Your task to perform on an android device: Open the map Image 0: 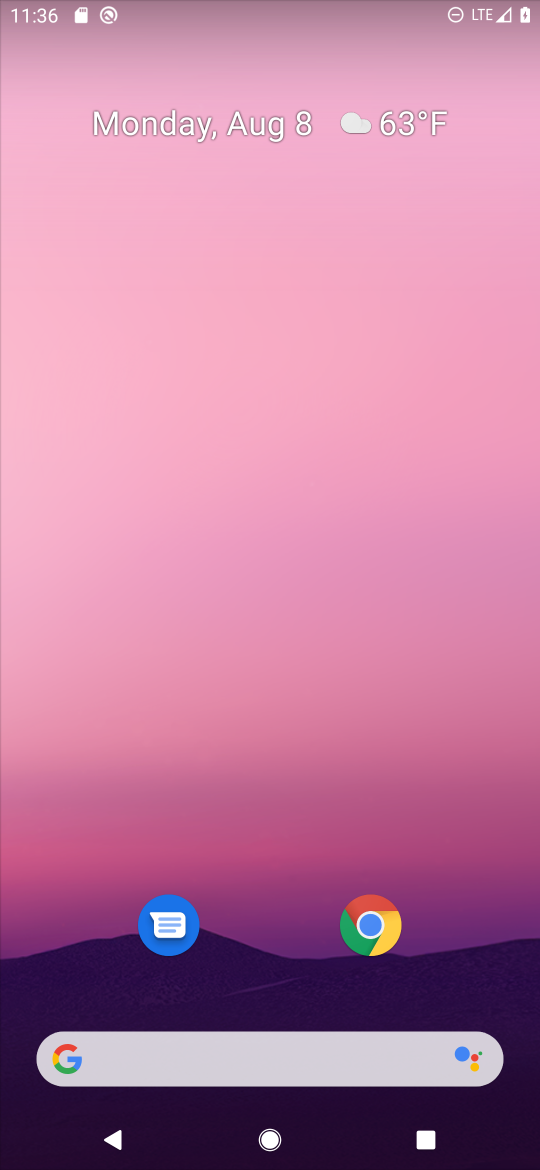
Step 0: drag from (267, 676) to (291, 113)
Your task to perform on an android device: Open the map Image 1: 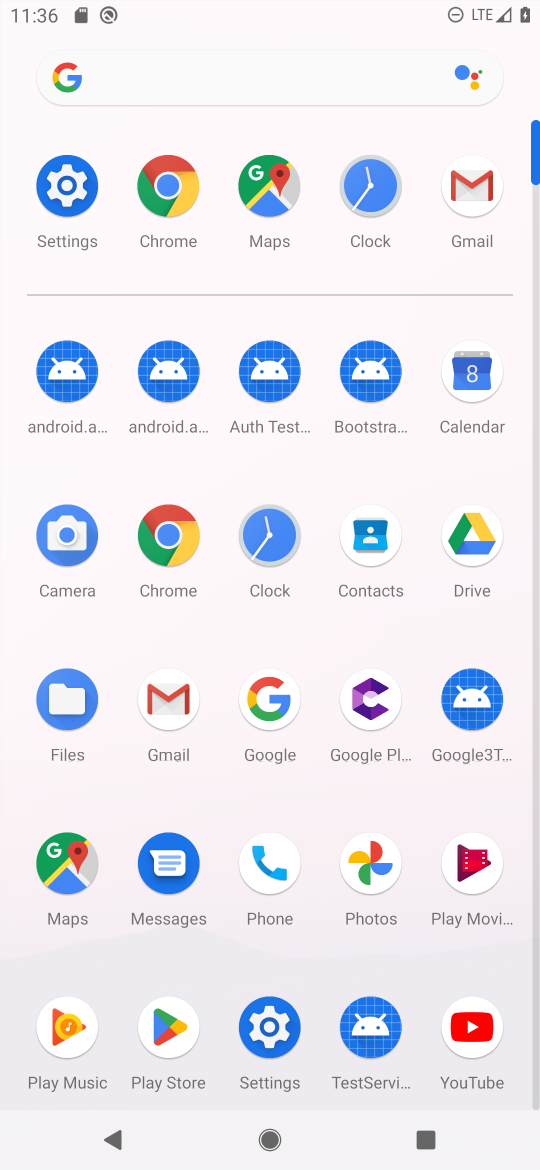
Step 1: click (75, 869)
Your task to perform on an android device: Open the map Image 2: 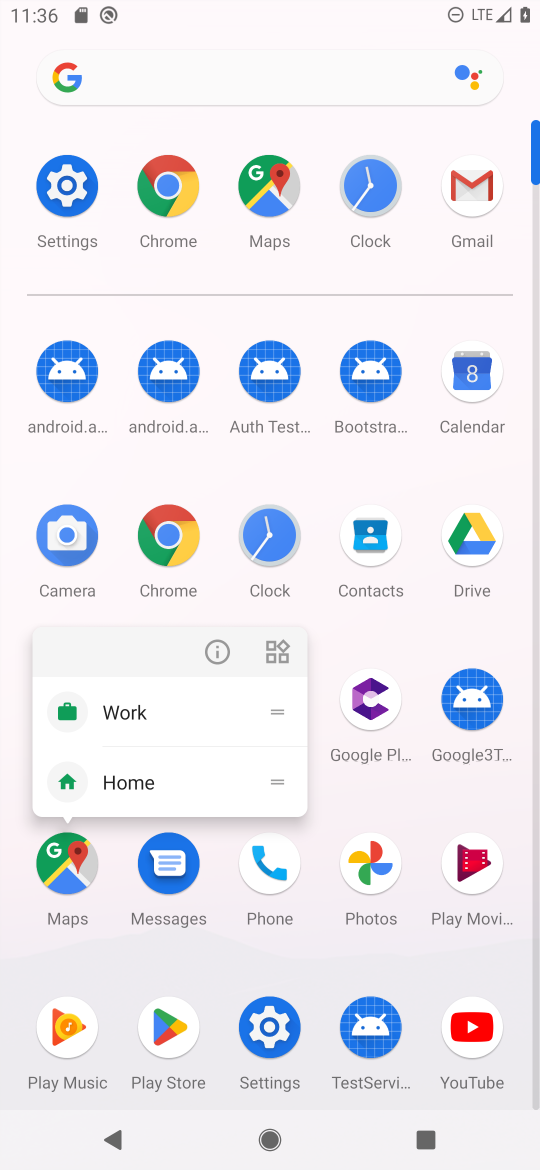
Step 2: click (75, 870)
Your task to perform on an android device: Open the map Image 3: 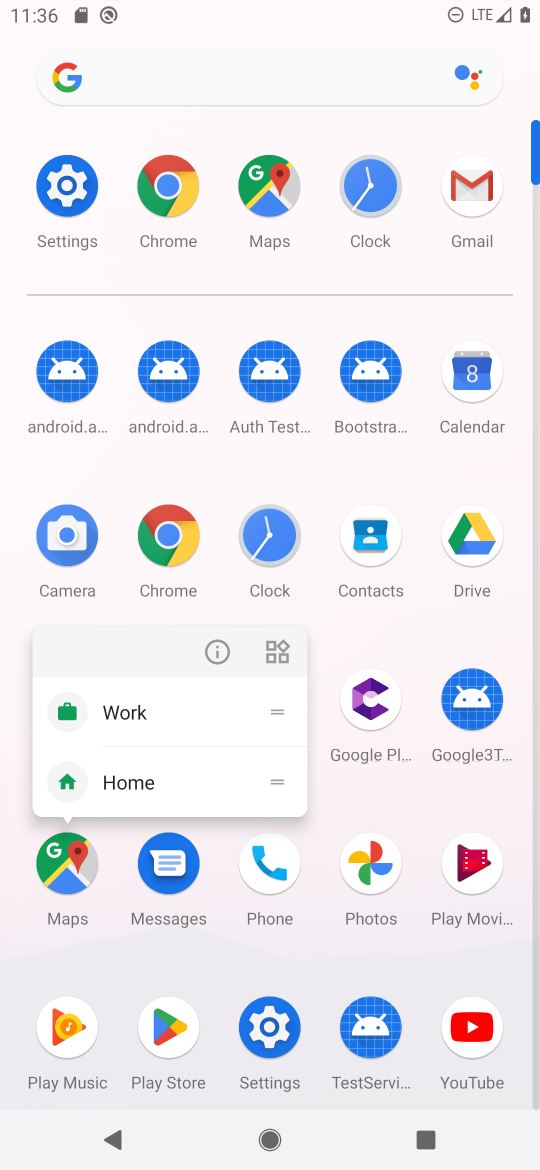
Step 3: click (68, 870)
Your task to perform on an android device: Open the map Image 4: 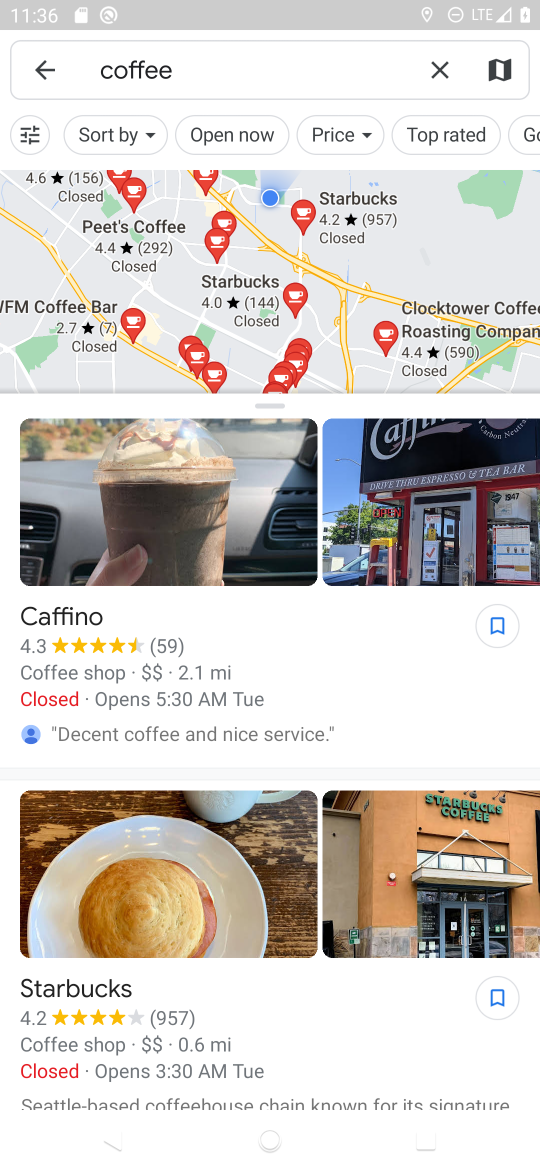
Step 4: task complete